Your task to perform on an android device: Open network settings Image 0: 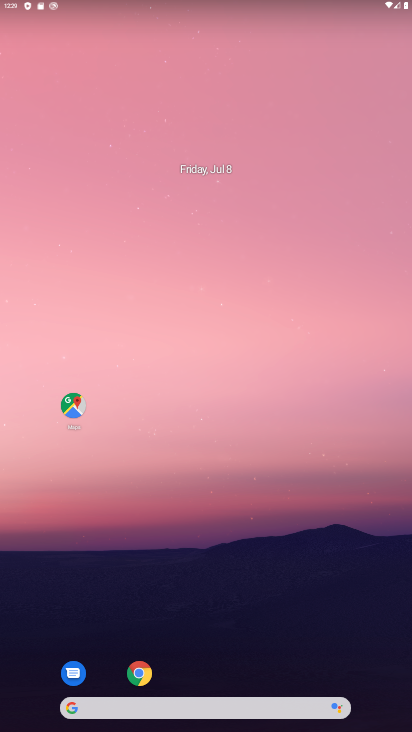
Step 0: drag from (212, 580) to (240, 91)
Your task to perform on an android device: Open network settings Image 1: 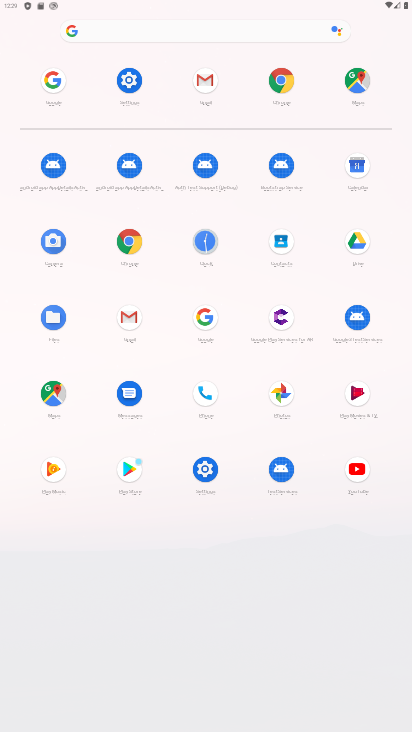
Step 1: click (129, 76)
Your task to perform on an android device: Open network settings Image 2: 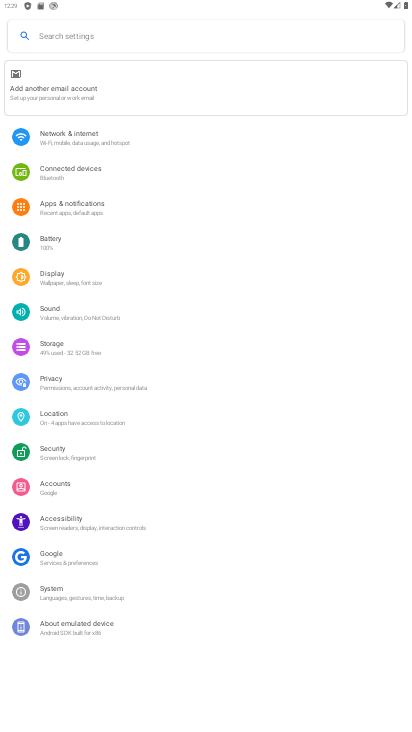
Step 2: click (86, 142)
Your task to perform on an android device: Open network settings Image 3: 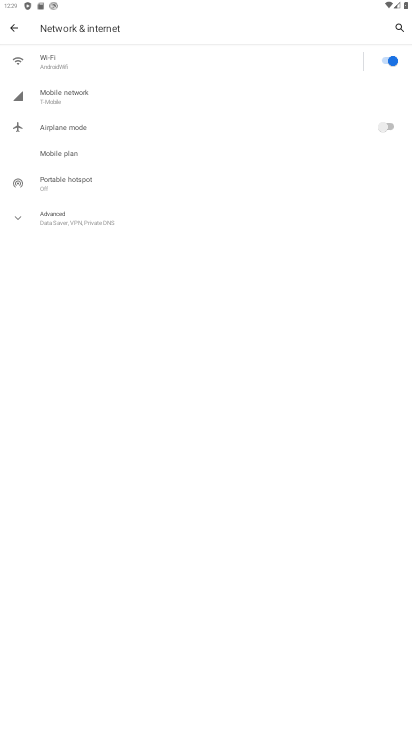
Step 3: click (65, 103)
Your task to perform on an android device: Open network settings Image 4: 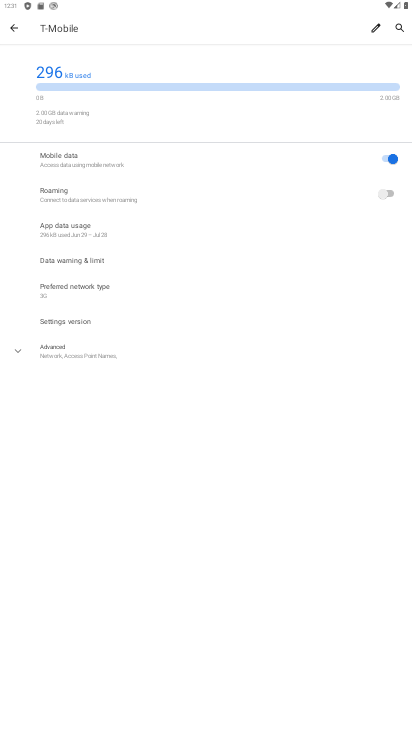
Step 4: task complete